Your task to perform on an android device: Open Youtube and go to the subscriptions tab Image 0: 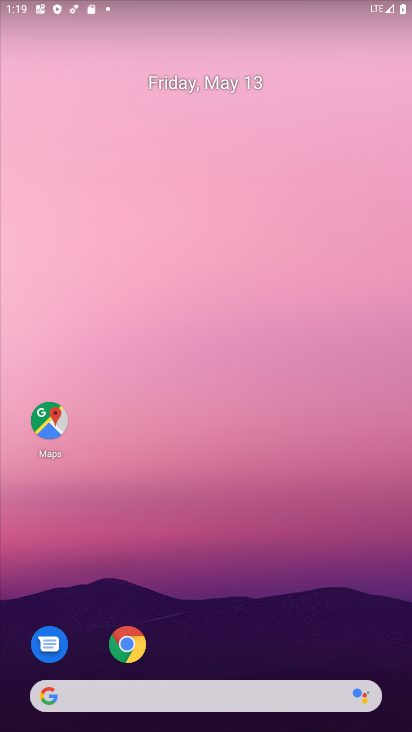
Step 0: drag from (314, 623) to (263, 120)
Your task to perform on an android device: Open Youtube and go to the subscriptions tab Image 1: 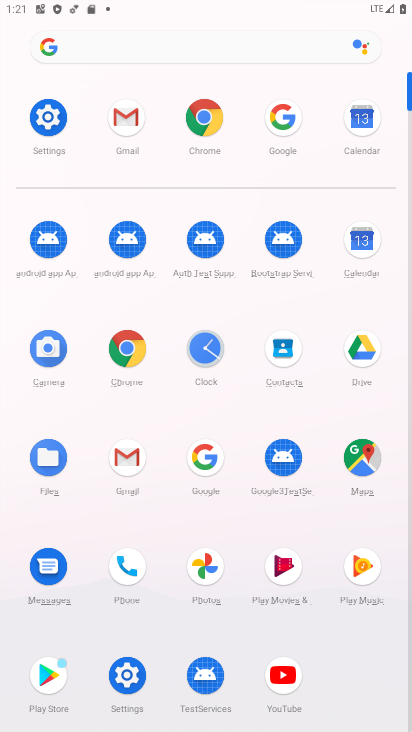
Step 1: click (270, 688)
Your task to perform on an android device: Open Youtube and go to the subscriptions tab Image 2: 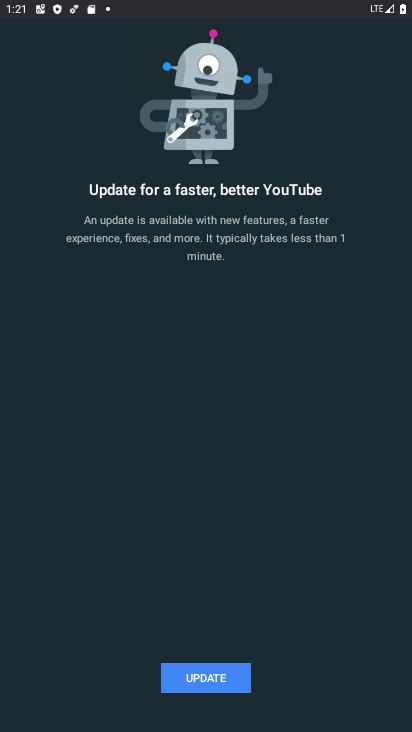
Step 2: click (200, 671)
Your task to perform on an android device: Open Youtube and go to the subscriptions tab Image 3: 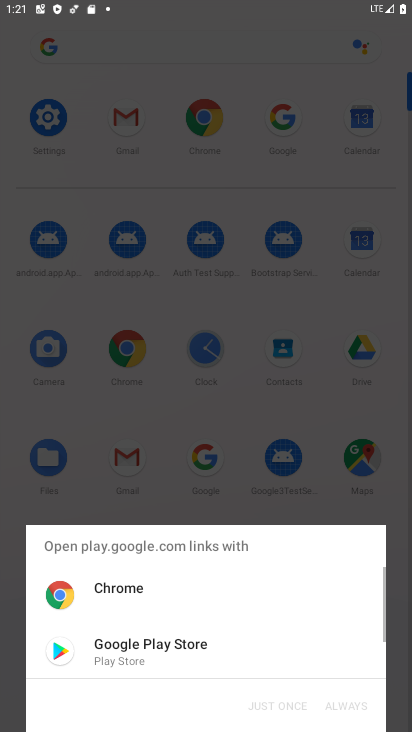
Step 3: click (174, 645)
Your task to perform on an android device: Open Youtube and go to the subscriptions tab Image 4: 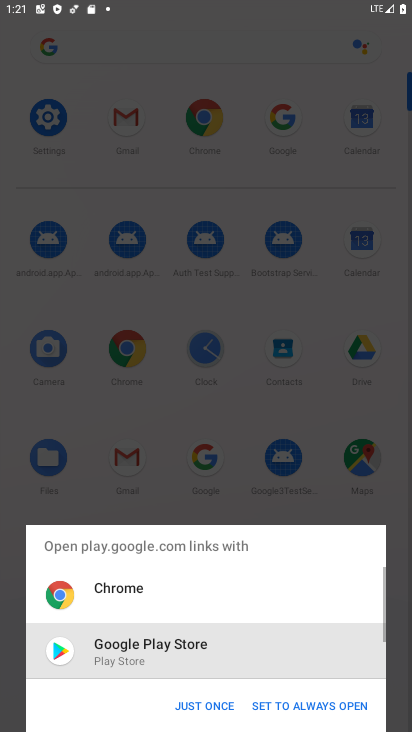
Step 4: drag from (204, 714) to (239, 714)
Your task to perform on an android device: Open Youtube and go to the subscriptions tab Image 5: 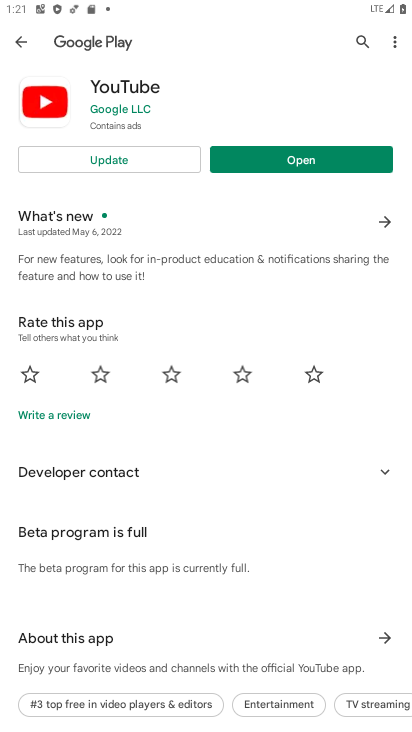
Step 5: click (142, 164)
Your task to perform on an android device: Open Youtube and go to the subscriptions tab Image 6: 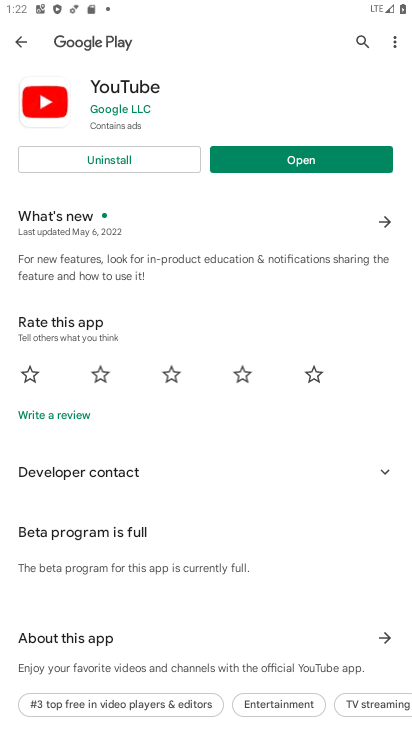
Step 6: click (287, 165)
Your task to perform on an android device: Open Youtube and go to the subscriptions tab Image 7: 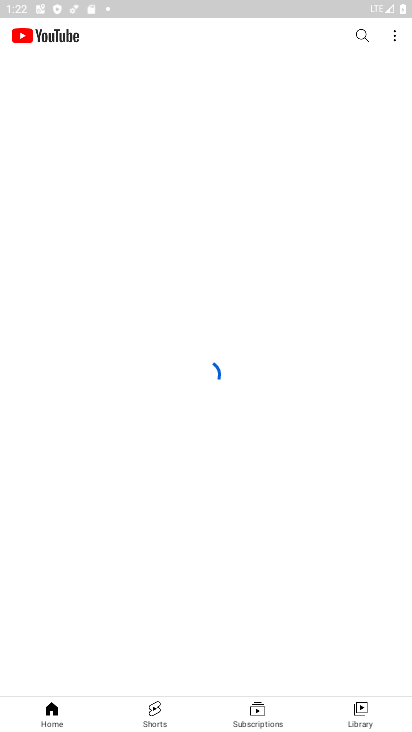
Step 7: click (253, 712)
Your task to perform on an android device: Open Youtube and go to the subscriptions tab Image 8: 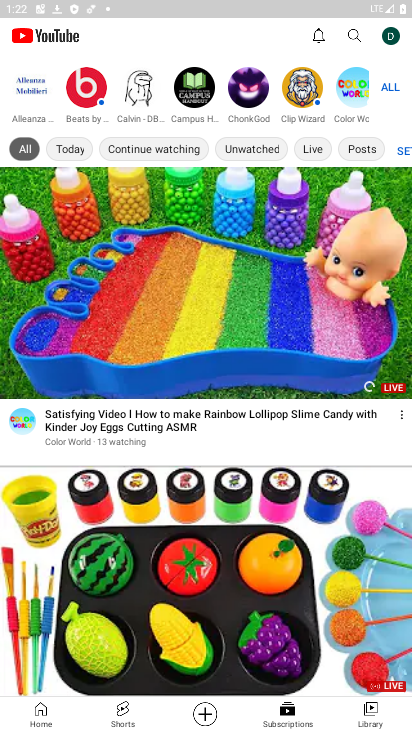
Step 8: task complete